Your task to perform on an android device: Check the news Image 0: 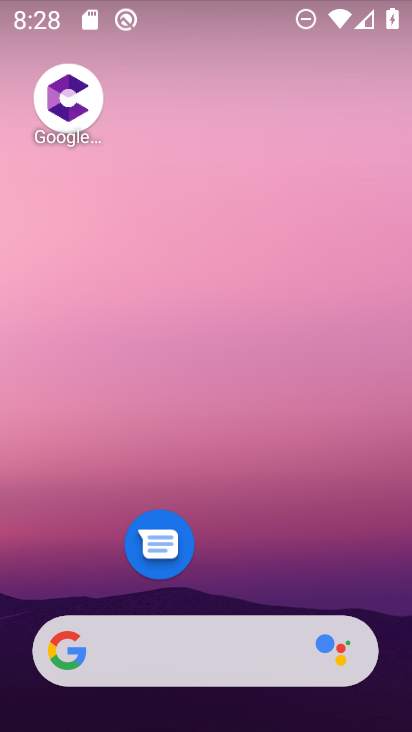
Step 0: drag from (223, 476) to (223, 155)
Your task to perform on an android device: Check the news Image 1: 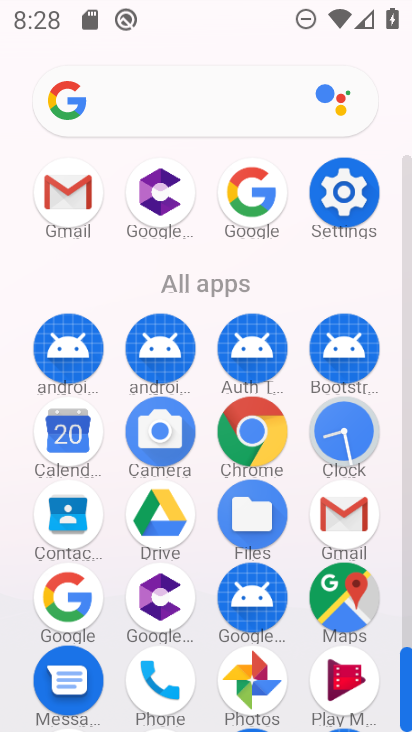
Step 1: click (239, 203)
Your task to perform on an android device: Check the news Image 2: 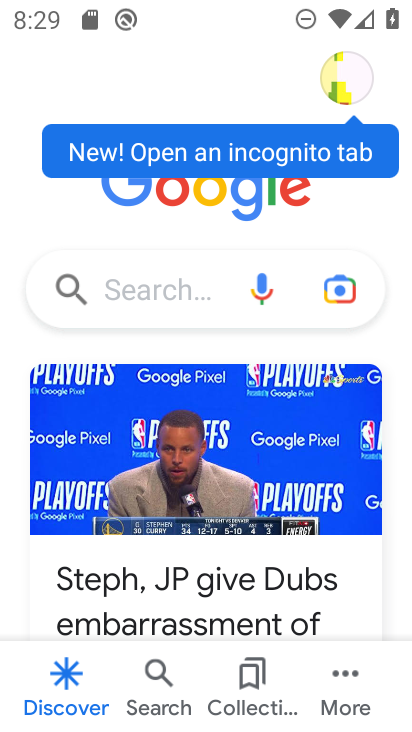
Step 2: task complete